Your task to perform on an android device: turn on improve location accuracy Image 0: 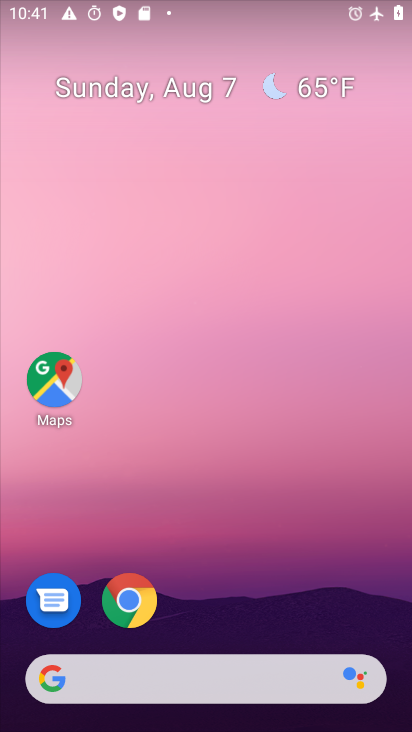
Step 0: drag from (259, 485) to (310, 20)
Your task to perform on an android device: turn on improve location accuracy Image 1: 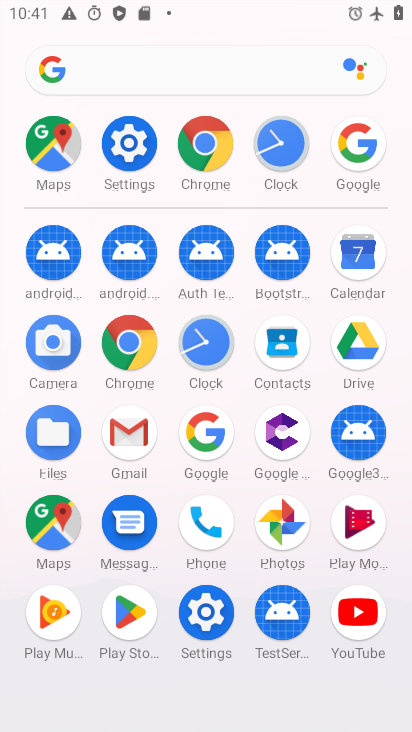
Step 1: click (141, 162)
Your task to perform on an android device: turn on improve location accuracy Image 2: 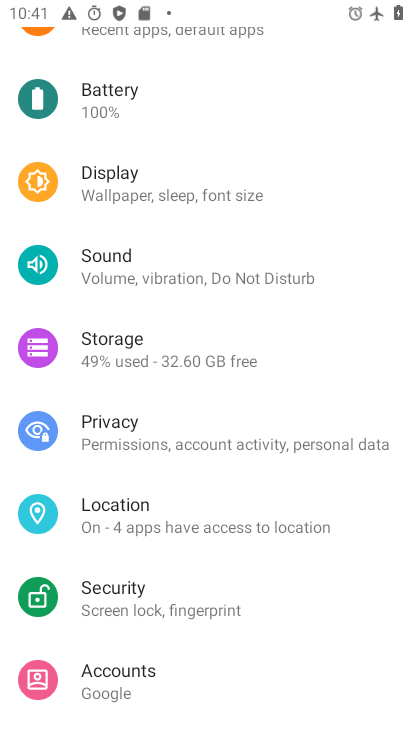
Step 2: click (181, 524)
Your task to perform on an android device: turn on improve location accuracy Image 3: 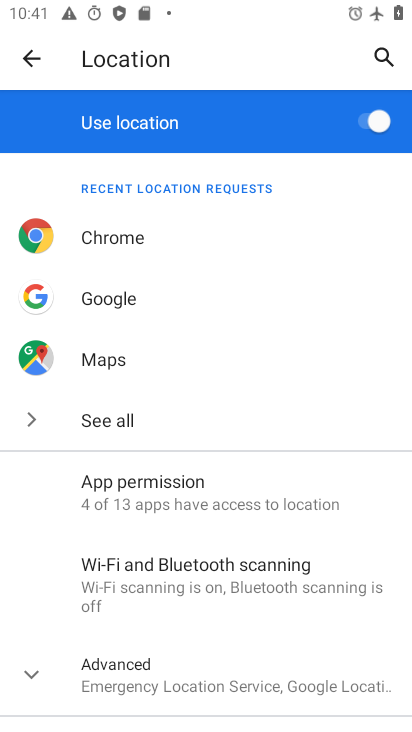
Step 3: drag from (233, 580) to (274, 295)
Your task to perform on an android device: turn on improve location accuracy Image 4: 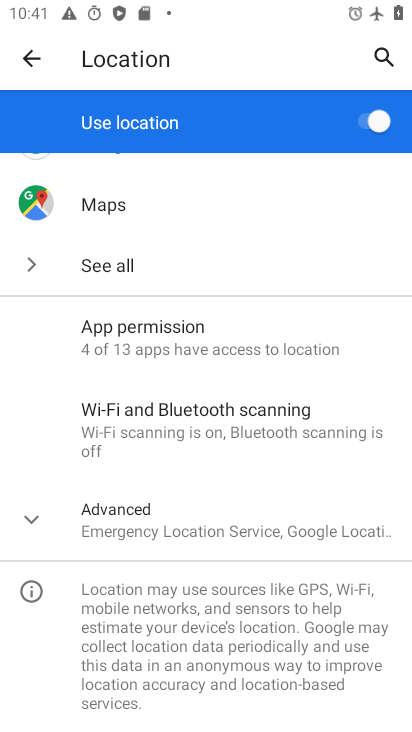
Step 4: click (243, 529)
Your task to perform on an android device: turn on improve location accuracy Image 5: 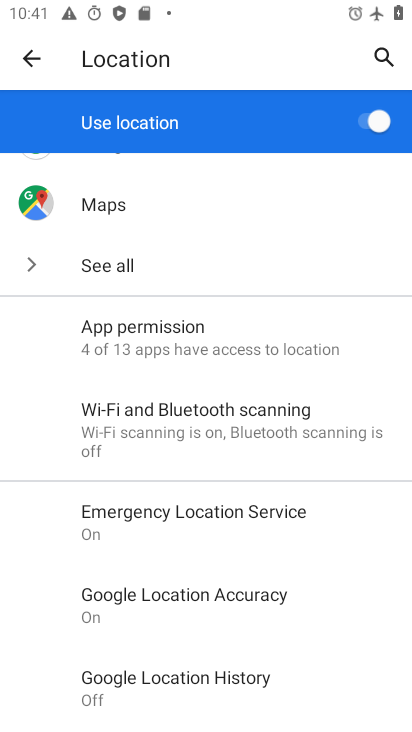
Step 5: click (217, 615)
Your task to perform on an android device: turn on improve location accuracy Image 6: 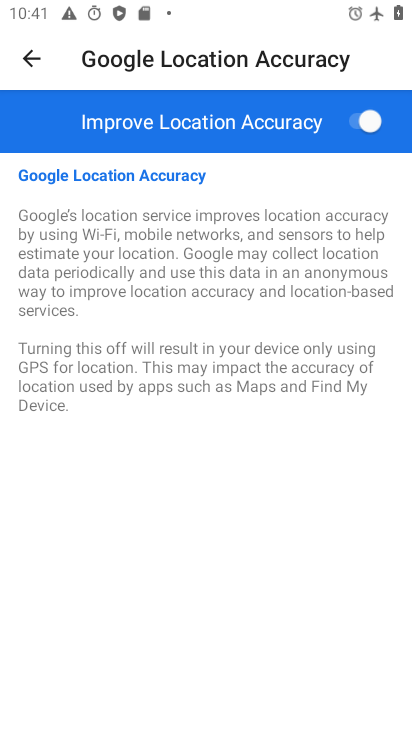
Step 6: task complete